Your task to perform on an android device: toggle improve location accuracy Image 0: 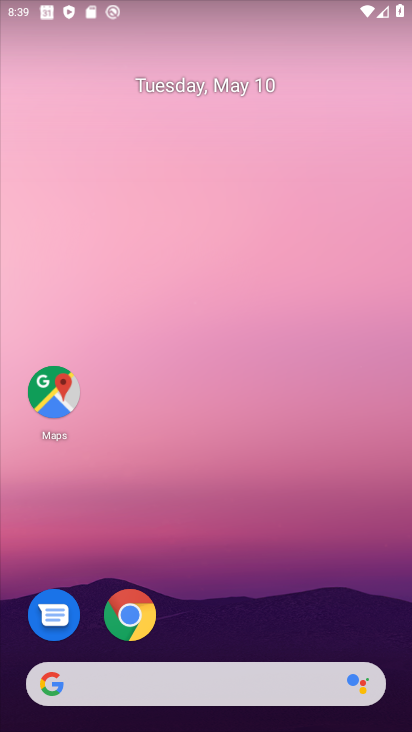
Step 0: drag from (208, 598) to (201, 206)
Your task to perform on an android device: toggle improve location accuracy Image 1: 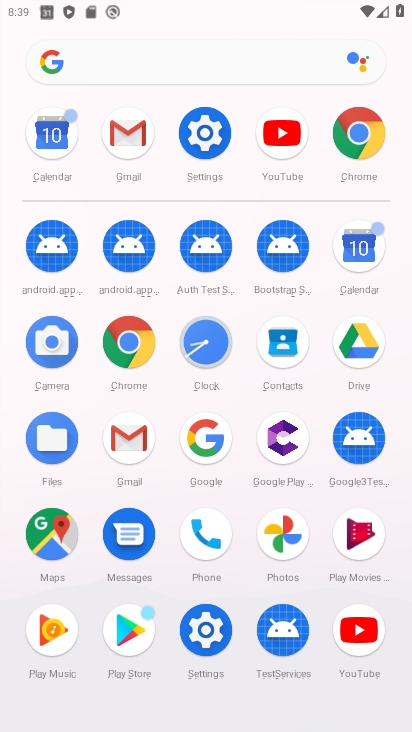
Step 1: click (198, 142)
Your task to perform on an android device: toggle improve location accuracy Image 2: 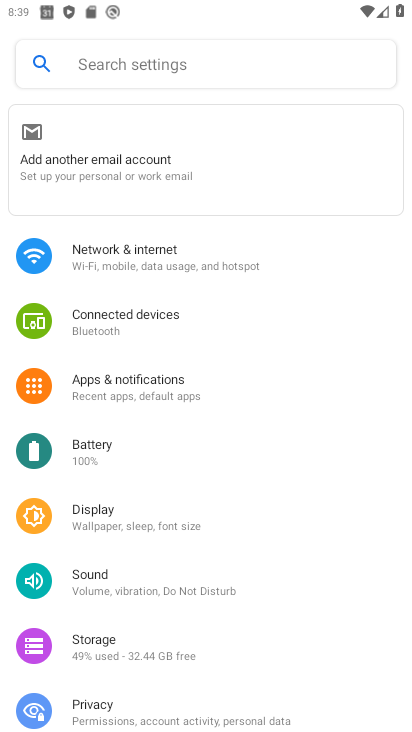
Step 2: drag from (236, 613) to (275, 248)
Your task to perform on an android device: toggle improve location accuracy Image 3: 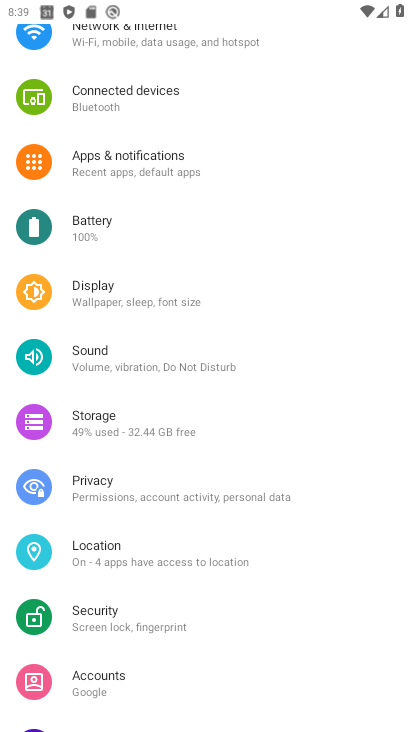
Step 3: click (113, 558)
Your task to perform on an android device: toggle improve location accuracy Image 4: 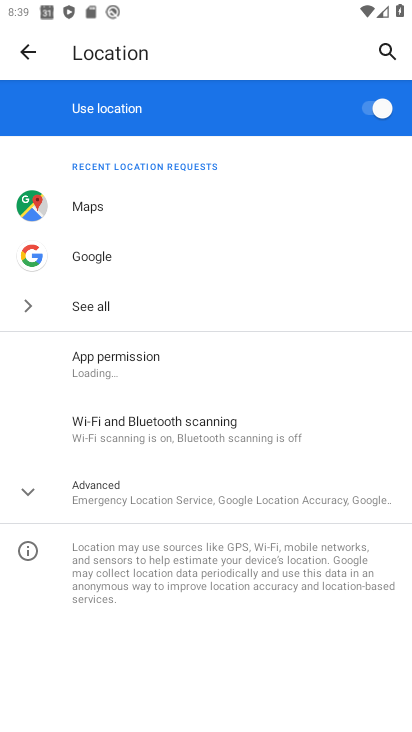
Step 4: click (131, 495)
Your task to perform on an android device: toggle improve location accuracy Image 5: 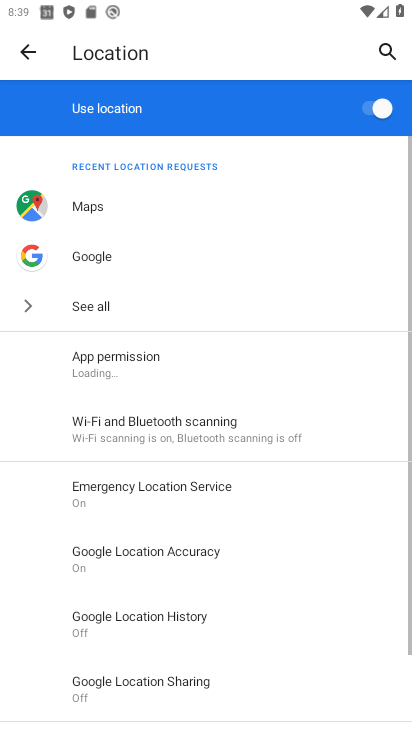
Step 5: click (177, 570)
Your task to perform on an android device: toggle improve location accuracy Image 6: 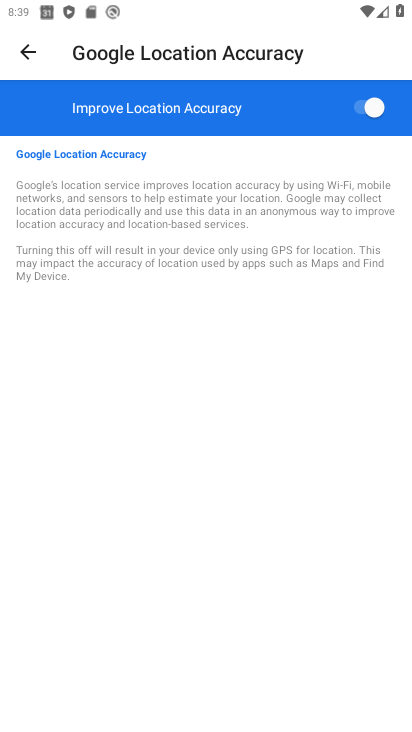
Step 6: click (358, 113)
Your task to perform on an android device: toggle improve location accuracy Image 7: 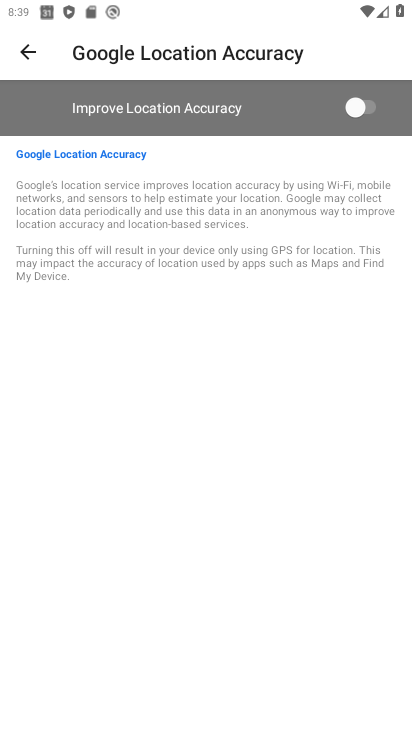
Step 7: task complete